Your task to perform on an android device: toggle notifications settings in the gmail app Image 0: 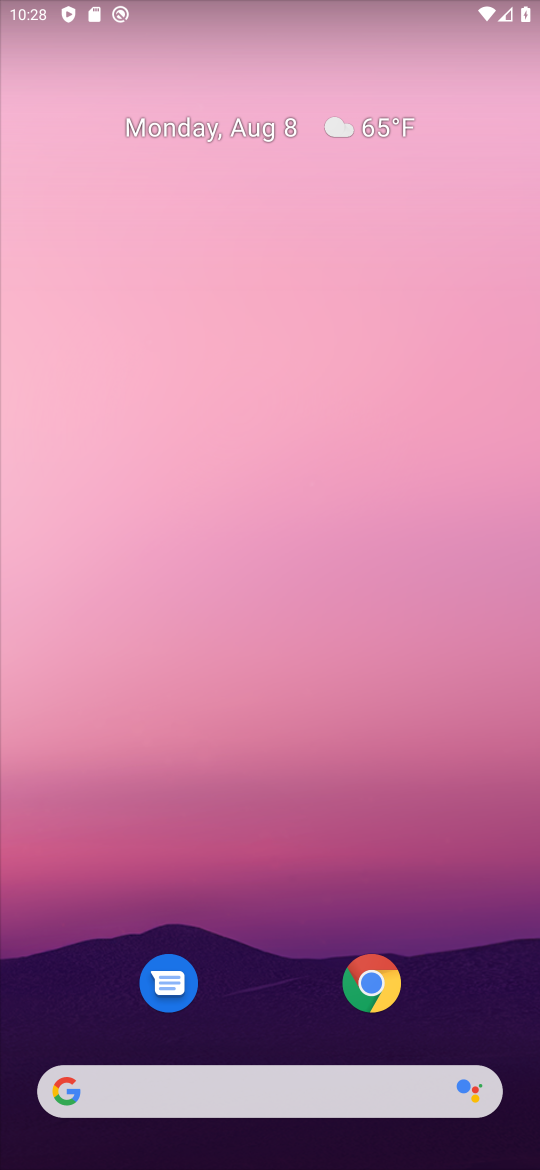
Step 0: drag from (276, 1002) to (196, 62)
Your task to perform on an android device: toggle notifications settings in the gmail app Image 1: 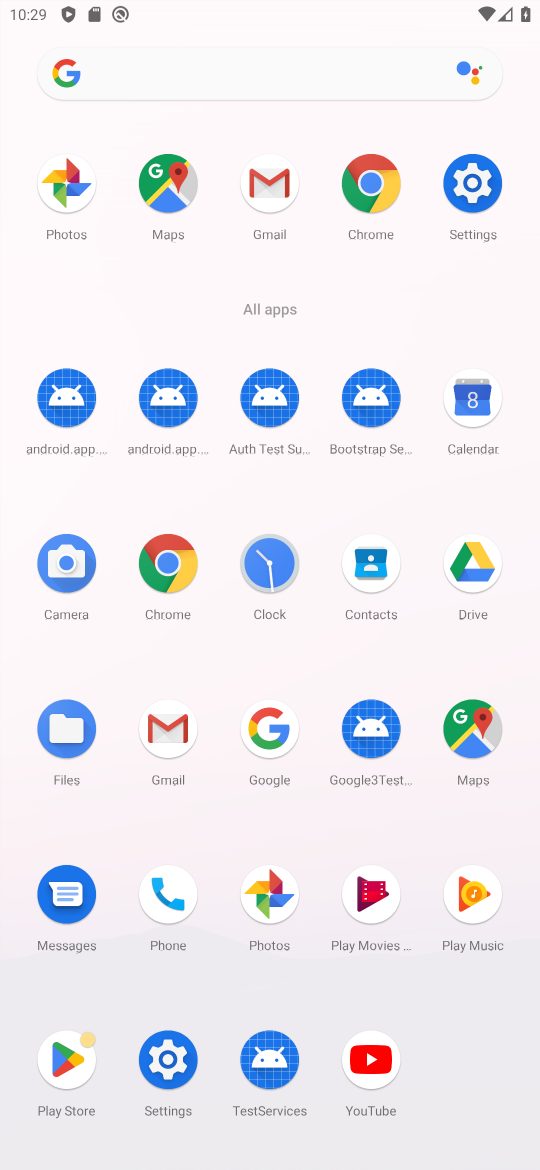
Step 1: click (255, 182)
Your task to perform on an android device: toggle notifications settings in the gmail app Image 2: 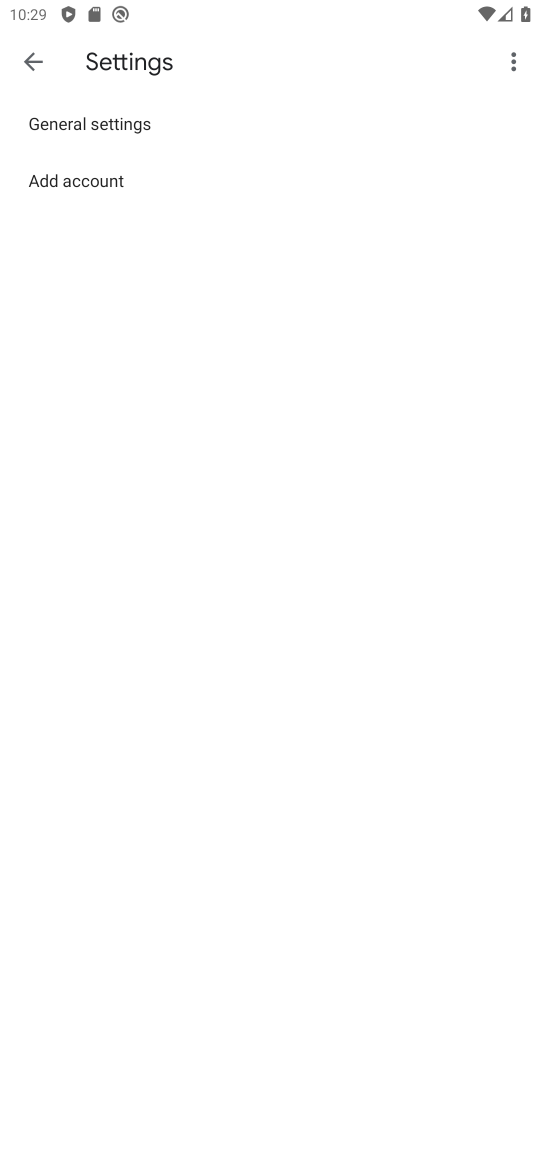
Step 2: task complete